Your task to perform on an android device: turn notification dots off Image 0: 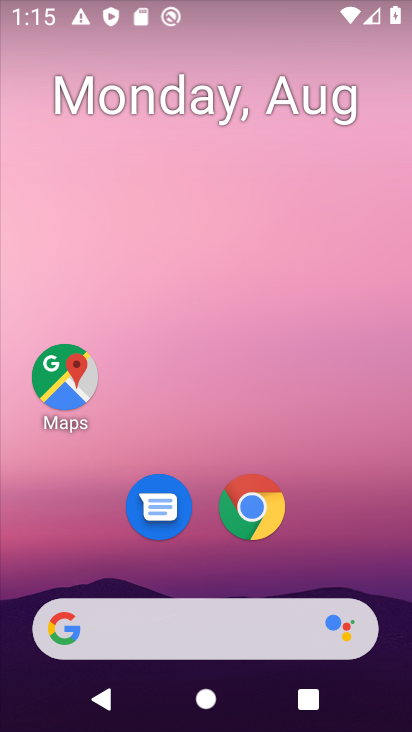
Step 0: press home button
Your task to perform on an android device: turn notification dots off Image 1: 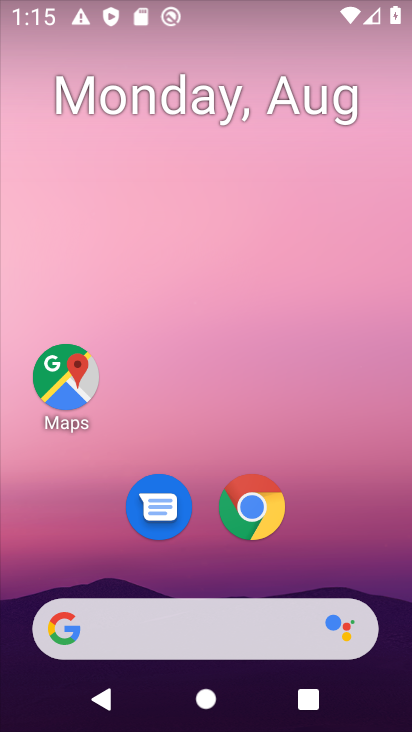
Step 1: drag from (204, 568) to (215, 65)
Your task to perform on an android device: turn notification dots off Image 2: 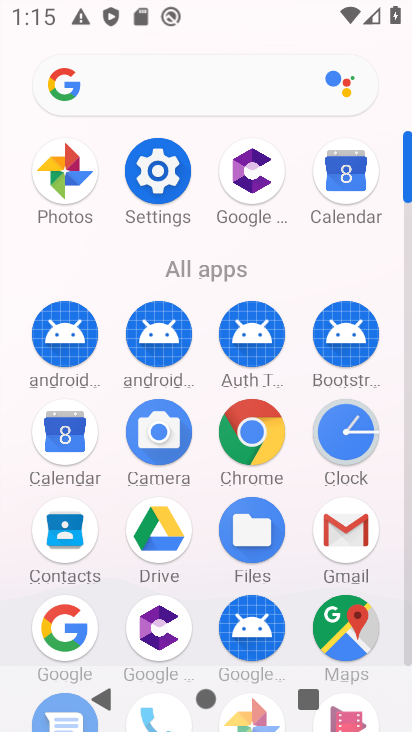
Step 2: click (157, 173)
Your task to perform on an android device: turn notification dots off Image 3: 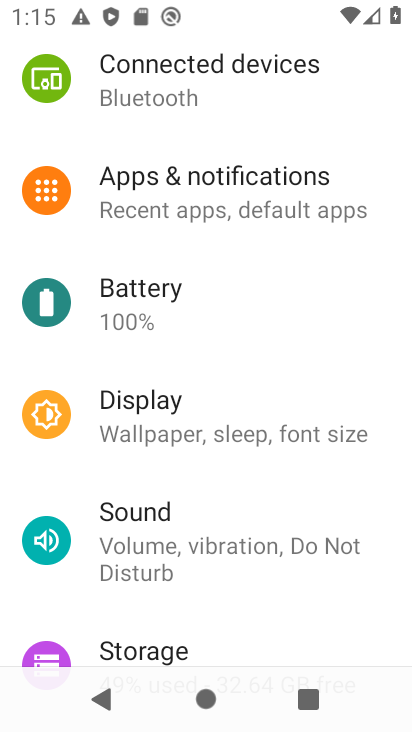
Step 3: click (149, 176)
Your task to perform on an android device: turn notification dots off Image 4: 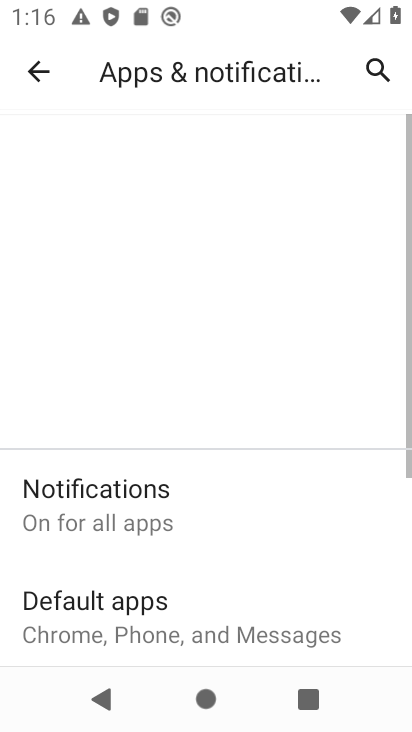
Step 4: click (134, 509)
Your task to perform on an android device: turn notification dots off Image 5: 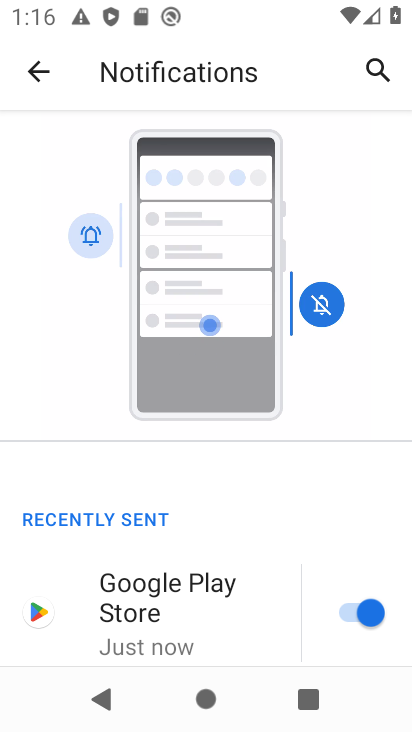
Step 5: drag from (183, 604) to (205, 167)
Your task to perform on an android device: turn notification dots off Image 6: 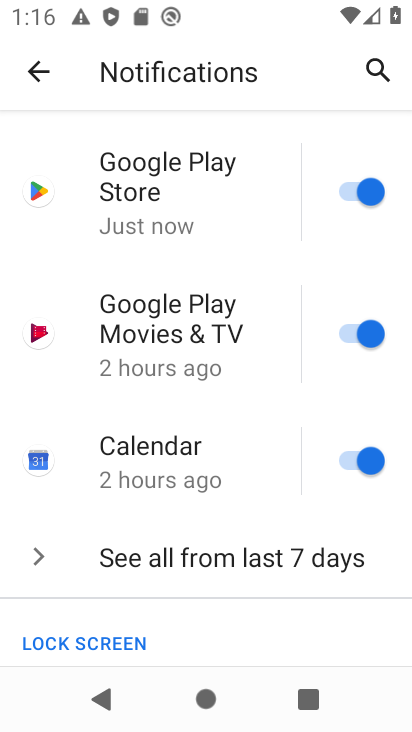
Step 6: drag from (156, 629) to (196, 128)
Your task to perform on an android device: turn notification dots off Image 7: 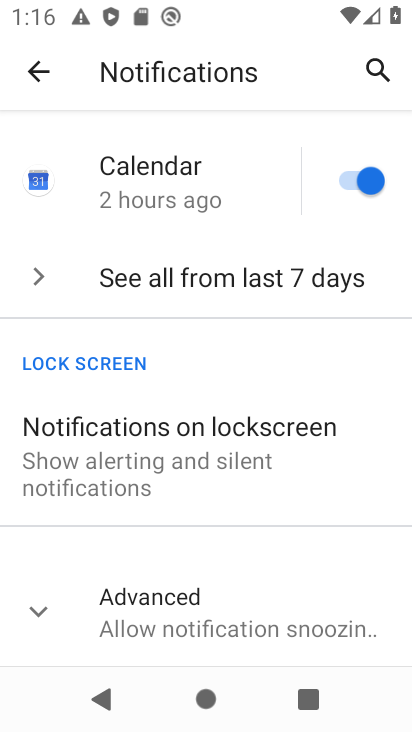
Step 7: click (39, 600)
Your task to perform on an android device: turn notification dots off Image 8: 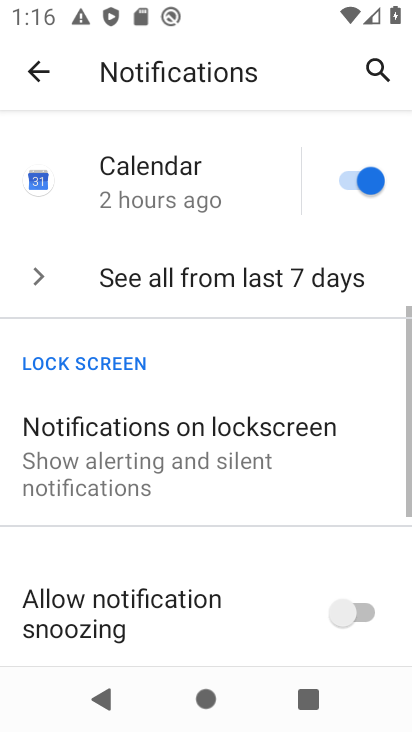
Step 8: drag from (211, 648) to (263, 55)
Your task to perform on an android device: turn notification dots off Image 9: 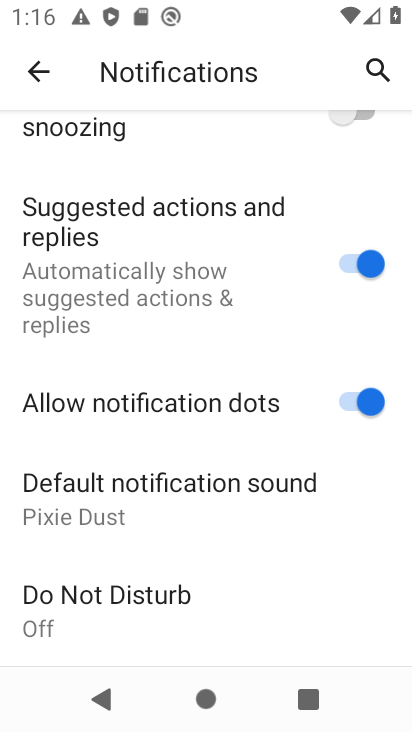
Step 9: drag from (200, 559) to (216, 297)
Your task to perform on an android device: turn notification dots off Image 10: 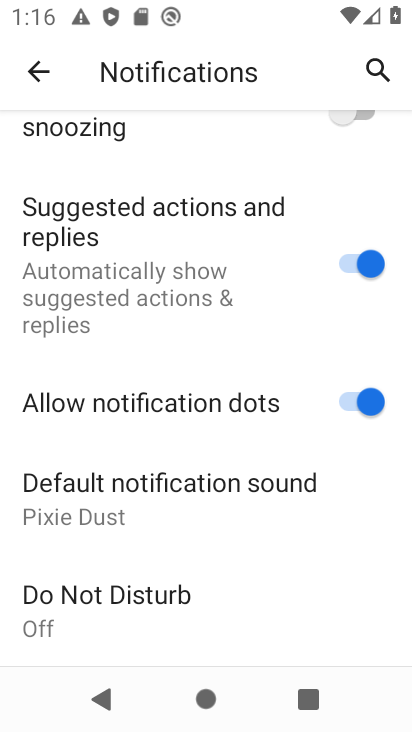
Step 10: click (338, 401)
Your task to perform on an android device: turn notification dots off Image 11: 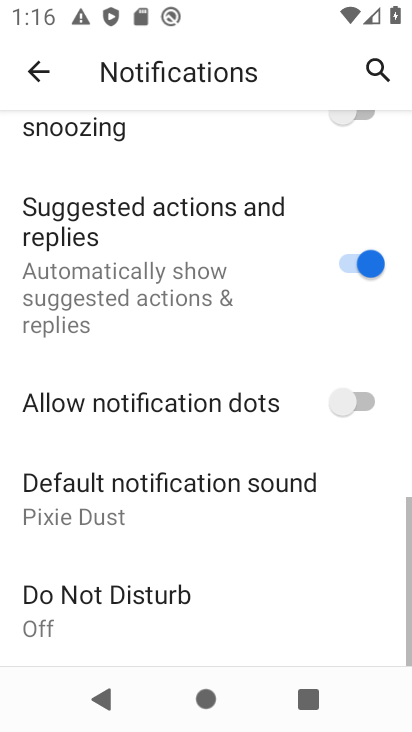
Step 11: task complete